Your task to perform on an android device: toggle priority inbox in the gmail app Image 0: 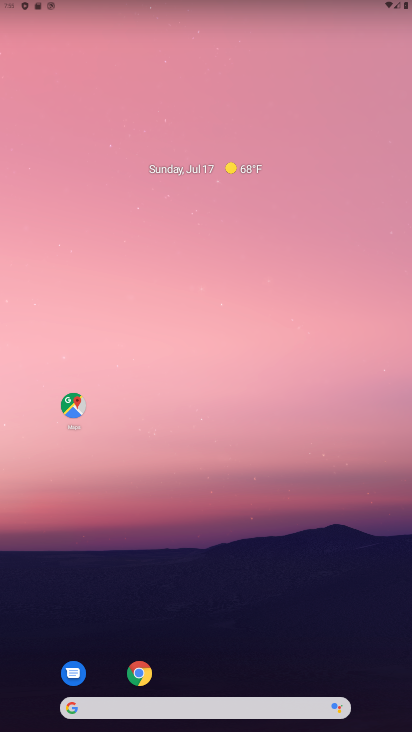
Step 0: drag from (315, 465) to (197, 30)
Your task to perform on an android device: toggle priority inbox in the gmail app Image 1: 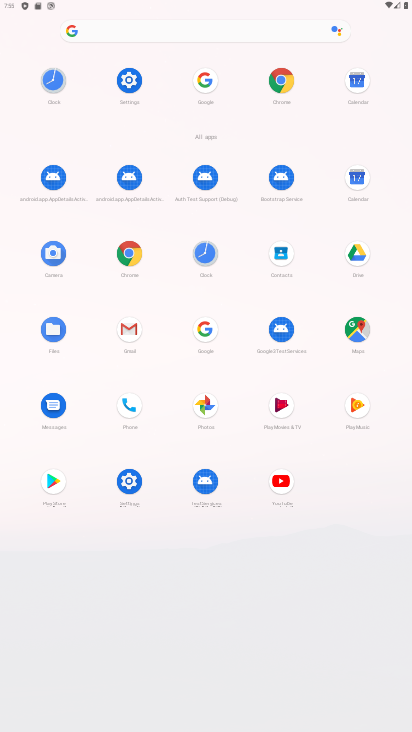
Step 1: click (138, 329)
Your task to perform on an android device: toggle priority inbox in the gmail app Image 2: 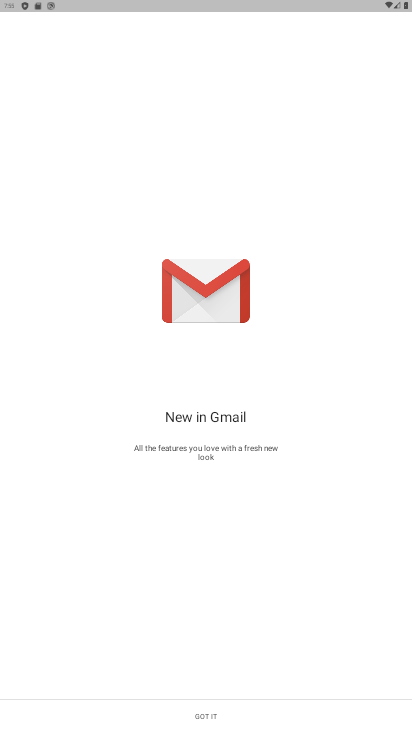
Step 2: click (210, 709)
Your task to perform on an android device: toggle priority inbox in the gmail app Image 3: 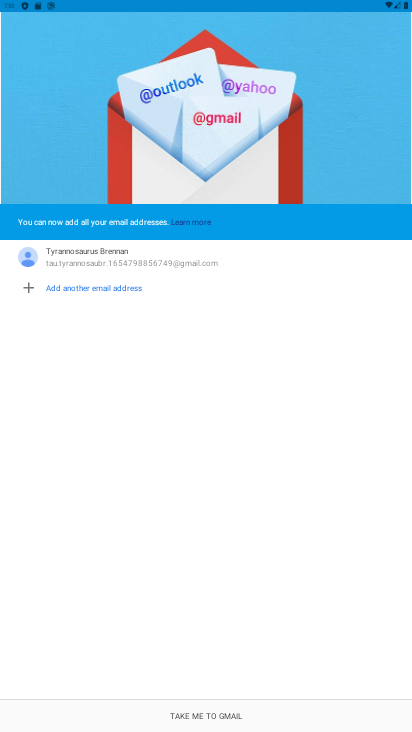
Step 3: click (205, 709)
Your task to perform on an android device: toggle priority inbox in the gmail app Image 4: 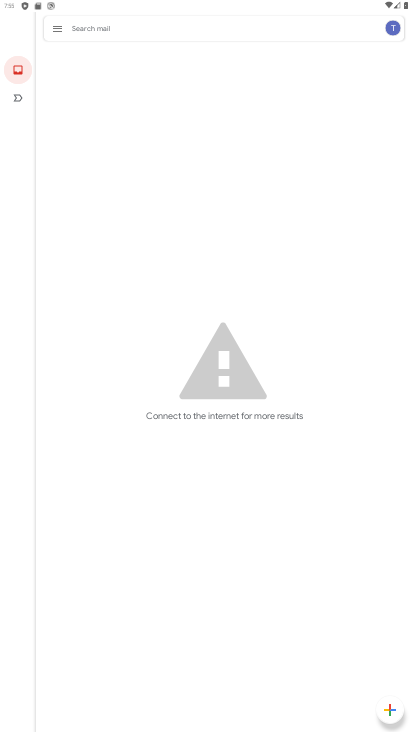
Step 4: click (60, 24)
Your task to perform on an android device: toggle priority inbox in the gmail app Image 5: 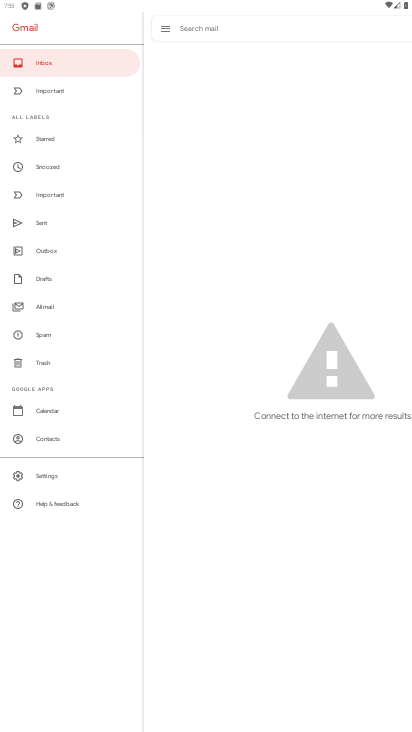
Step 5: click (54, 476)
Your task to perform on an android device: toggle priority inbox in the gmail app Image 6: 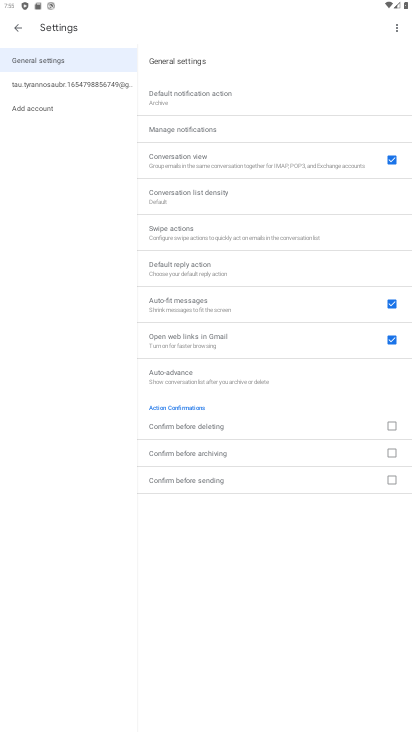
Step 6: click (37, 82)
Your task to perform on an android device: toggle priority inbox in the gmail app Image 7: 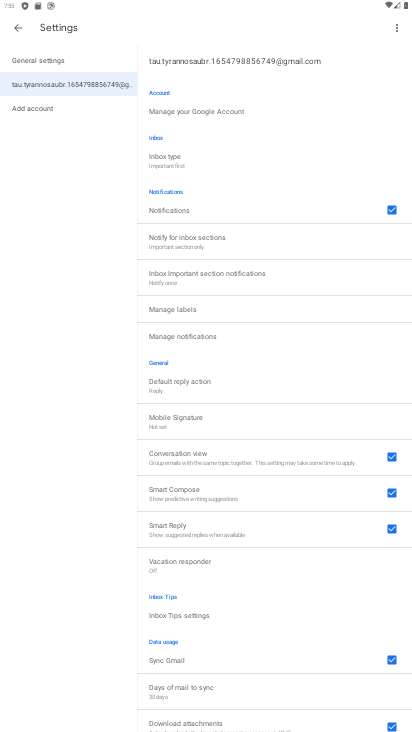
Step 7: click (168, 165)
Your task to perform on an android device: toggle priority inbox in the gmail app Image 8: 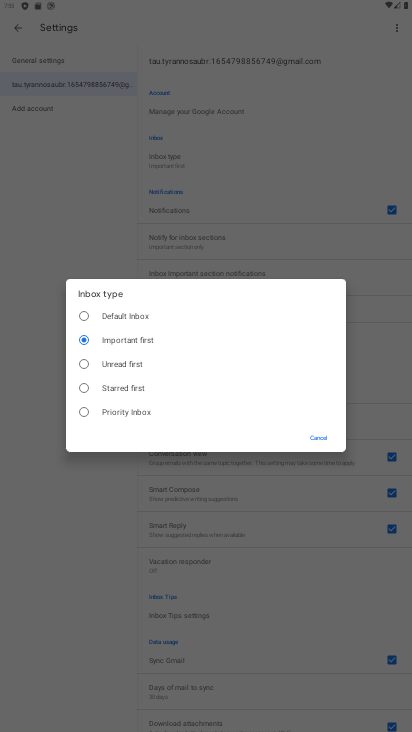
Step 8: click (134, 407)
Your task to perform on an android device: toggle priority inbox in the gmail app Image 9: 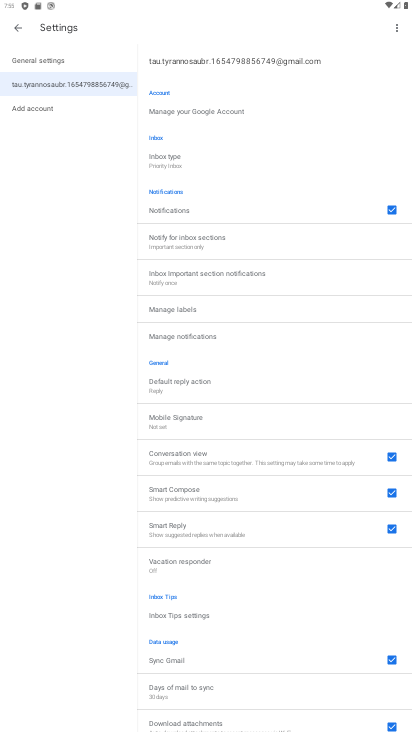
Step 9: task complete